Your task to perform on an android device: Open network settings Image 0: 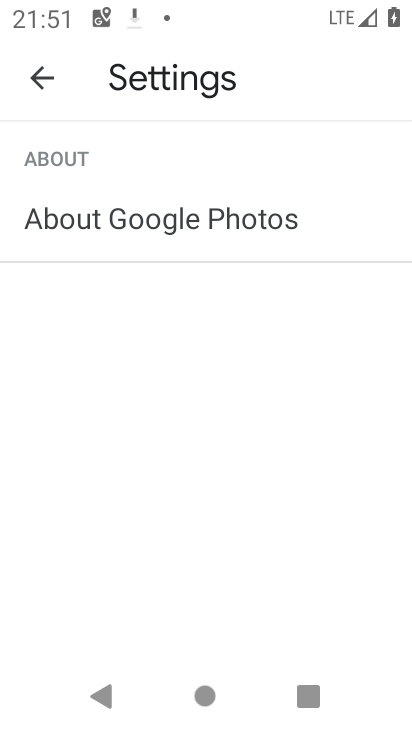
Step 0: press back button
Your task to perform on an android device: Open network settings Image 1: 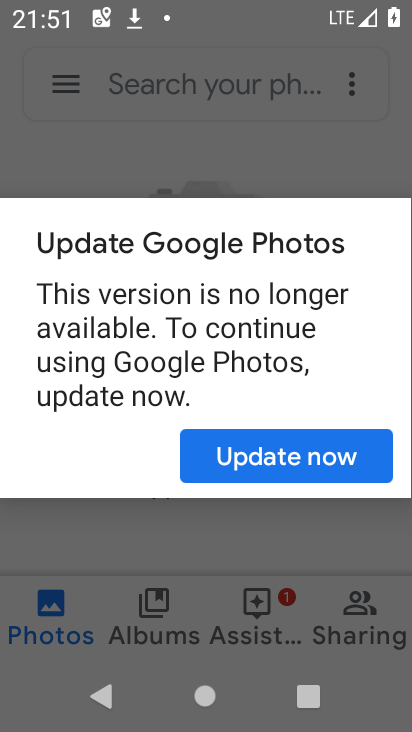
Step 1: press home button
Your task to perform on an android device: Open network settings Image 2: 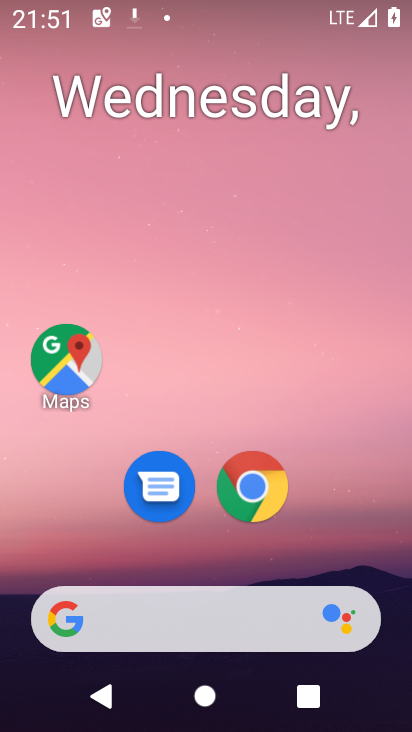
Step 2: drag from (179, 578) to (259, 26)
Your task to perform on an android device: Open network settings Image 3: 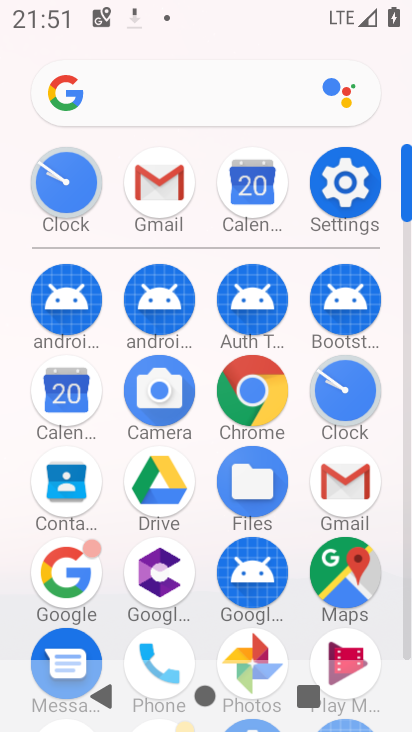
Step 3: click (349, 176)
Your task to perform on an android device: Open network settings Image 4: 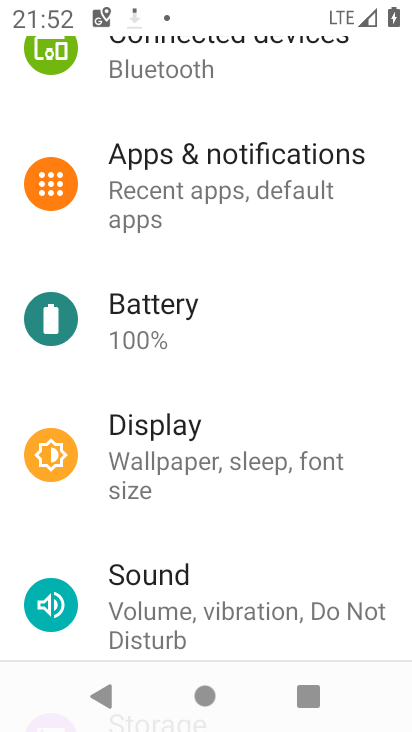
Step 4: drag from (205, 139) to (254, 726)
Your task to perform on an android device: Open network settings Image 5: 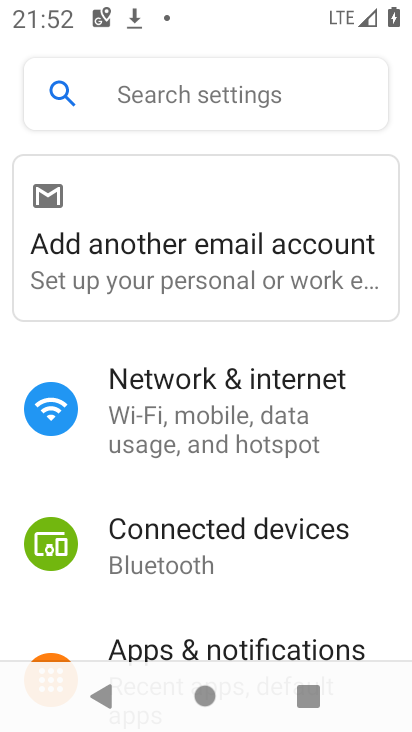
Step 5: click (215, 400)
Your task to perform on an android device: Open network settings Image 6: 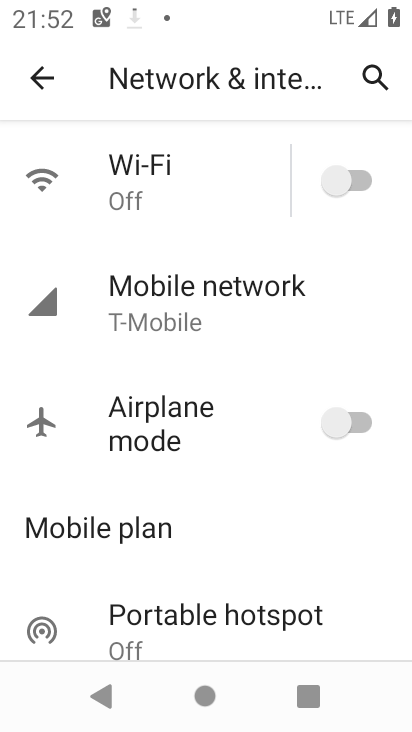
Step 6: task complete